Your task to perform on an android device: Go to Wikipedia Image 0: 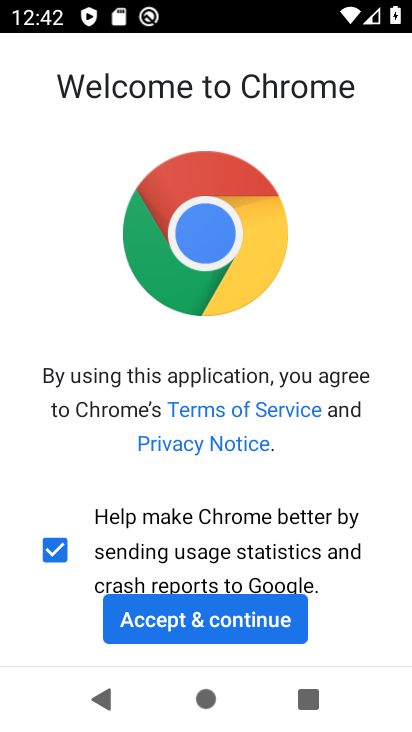
Step 0: press home button
Your task to perform on an android device: Go to Wikipedia Image 1: 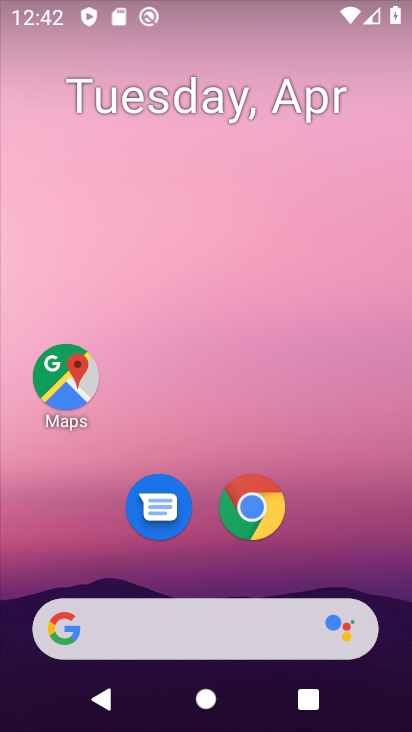
Step 1: click (241, 511)
Your task to perform on an android device: Go to Wikipedia Image 2: 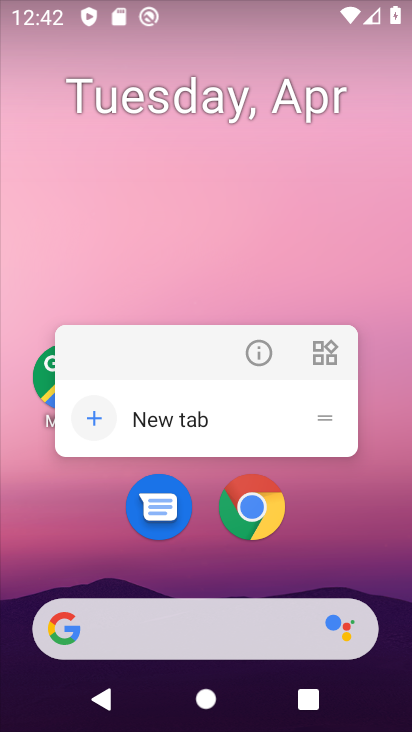
Step 2: click (253, 358)
Your task to perform on an android device: Go to Wikipedia Image 3: 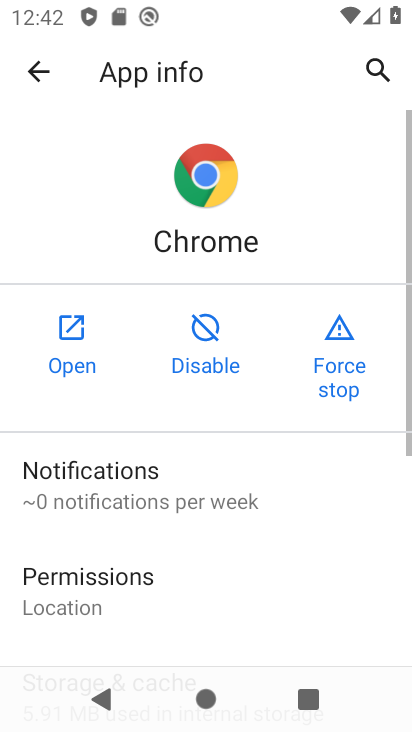
Step 3: click (81, 342)
Your task to perform on an android device: Go to Wikipedia Image 4: 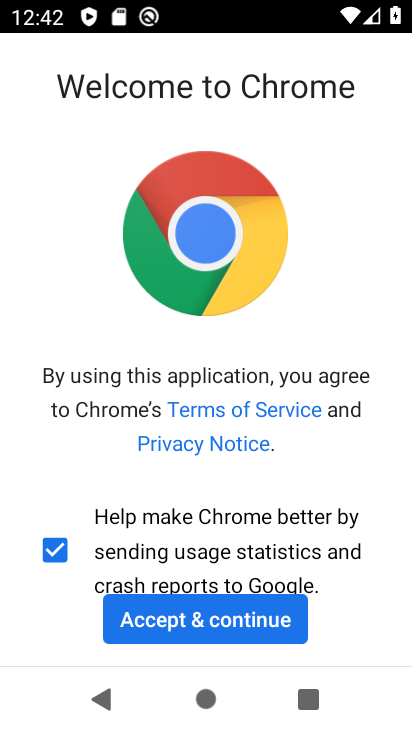
Step 4: click (192, 609)
Your task to perform on an android device: Go to Wikipedia Image 5: 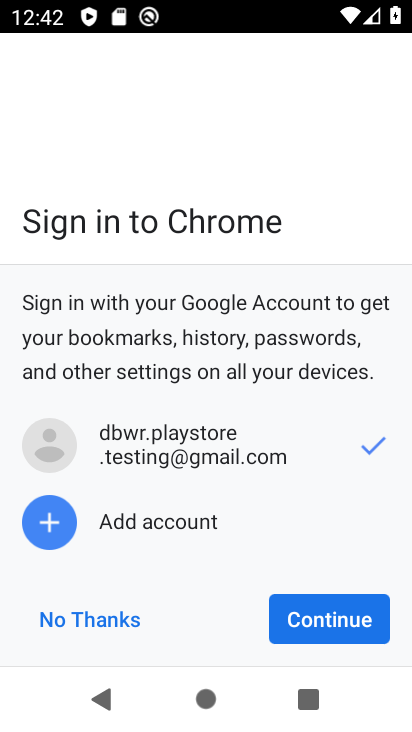
Step 5: click (334, 623)
Your task to perform on an android device: Go to Wikipedia Image 6: 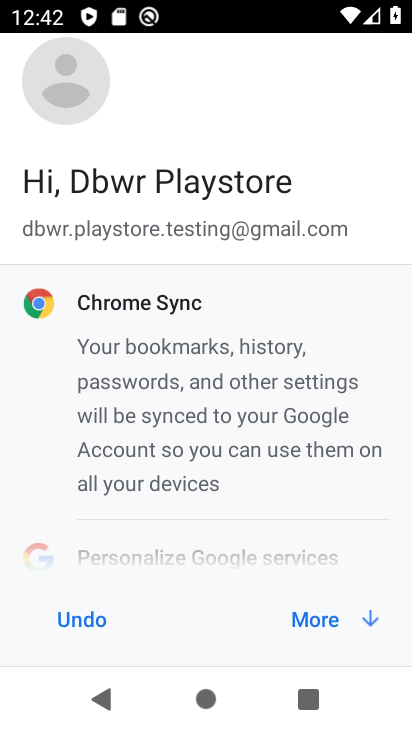
Step 6: click (349, 623)
Your task to perform on an android device: Go to Wikipedia Image 7: 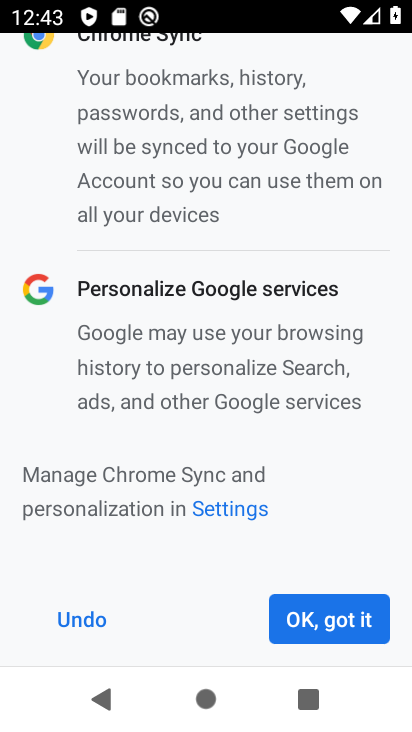
Step 7: click (349, 624)
Your task to perform on an android device: Go to Wikipedia Image 8: 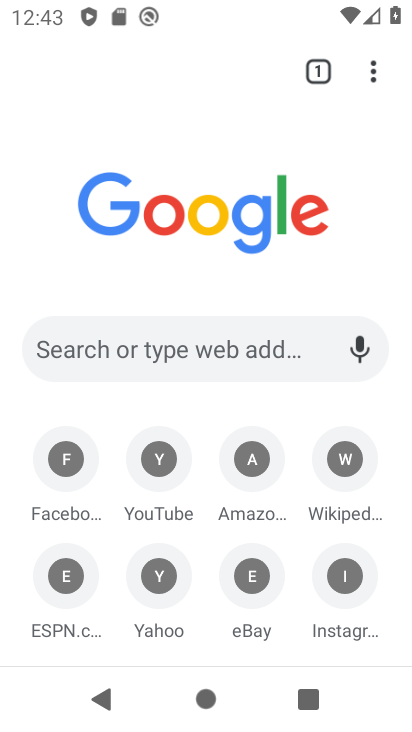
Step 8: click (154, 343)
Your task to perform on an android device: Go to Wikipedia Image 9: 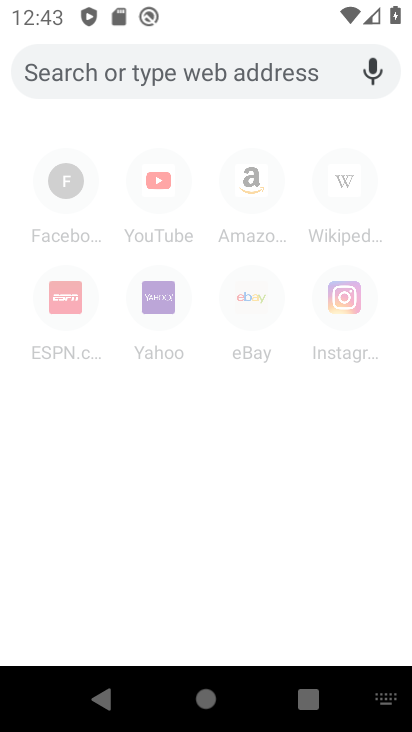
Step 9: type "wikipedia"
Your task to perform on an android device: Go to Wikipedia Image 10: 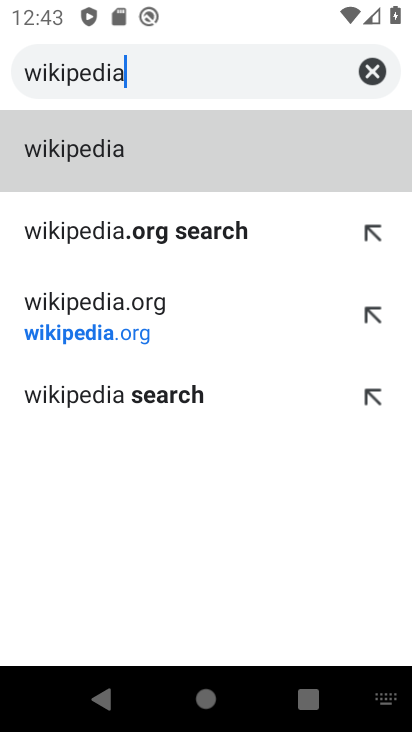
Step 10: click (148, 142)
Your task to perform on an android device: Go to Wikipedia Image 11: 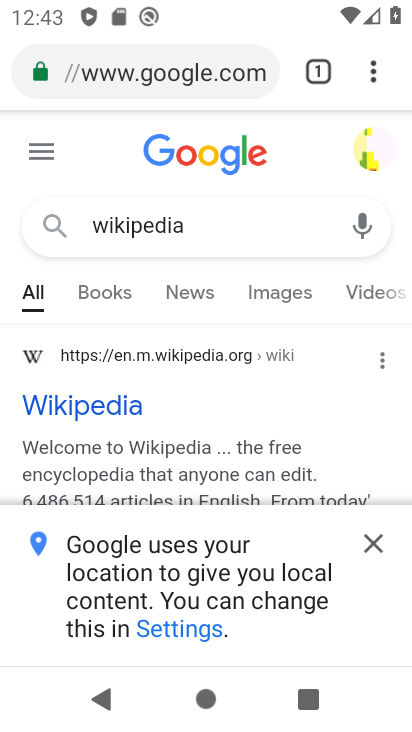
Step 11: task complete